Your task to perform on an android device: turn on sleep mode Image 0: 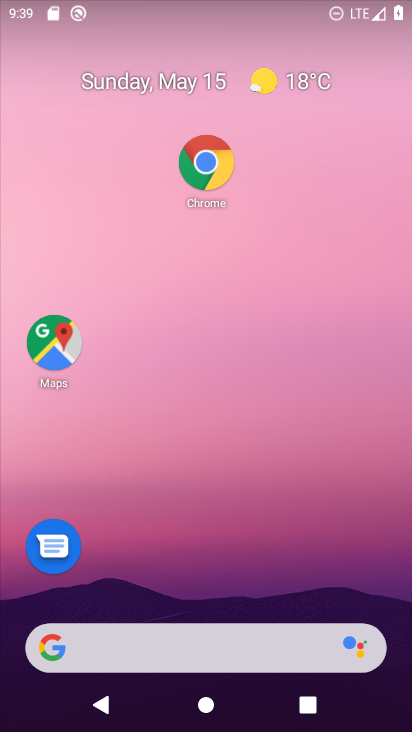
Step 0: drag from (236, 586) to (247, 268)
Your task to perform on an android device: turn on sleep mode Image 1: 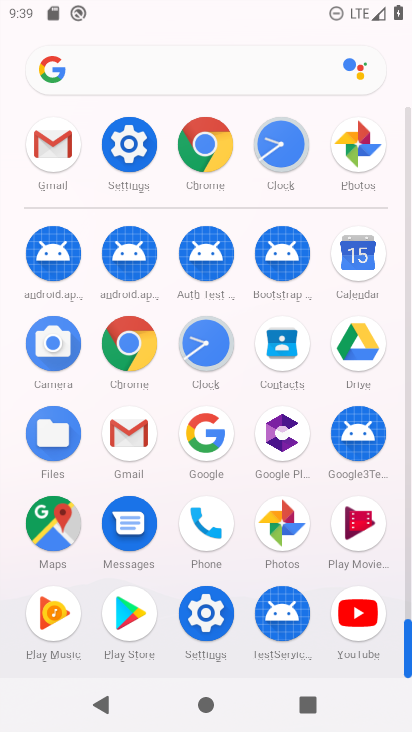
Step 1: click (136, 150)
Your task to perform on an android device: turn on sleep mode Image 2: 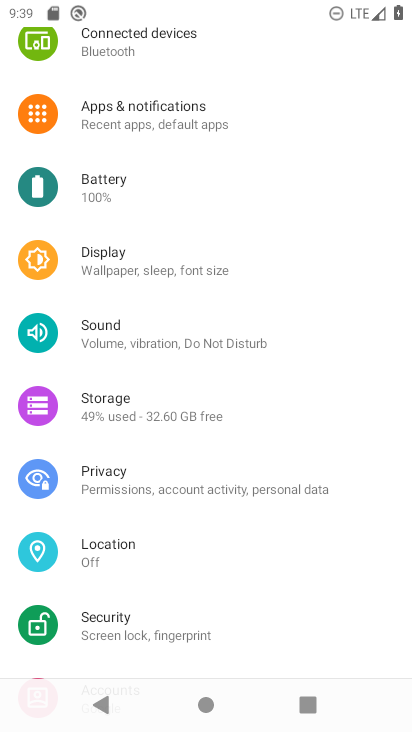
Step 2: task complete